Your task to perform on an android device: What's the weather like in London? Image 0: 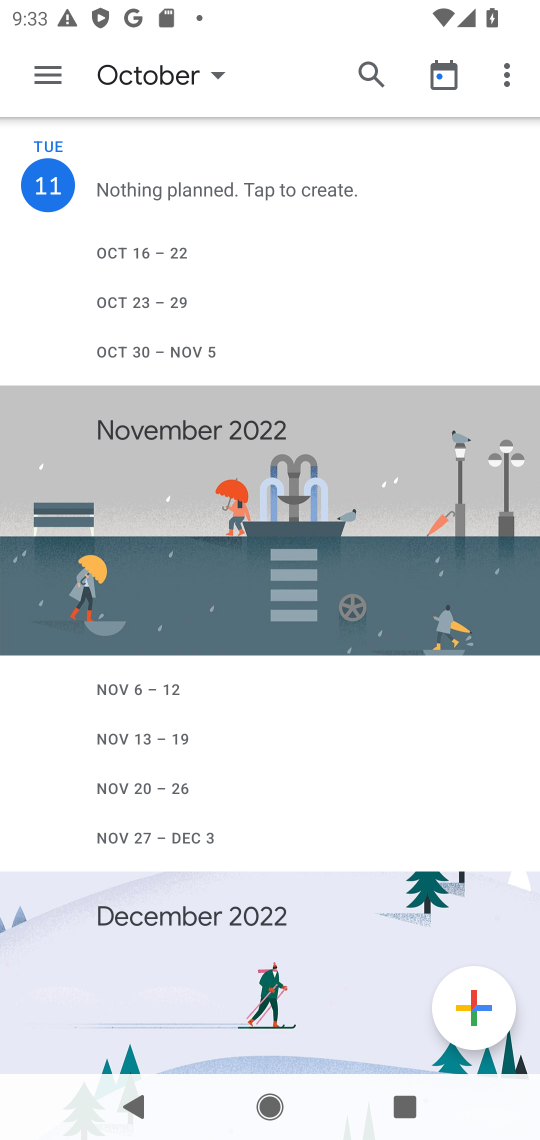
Step 0: press home button
Your task to perform on an android device: What's the weather like in London? Image 1: 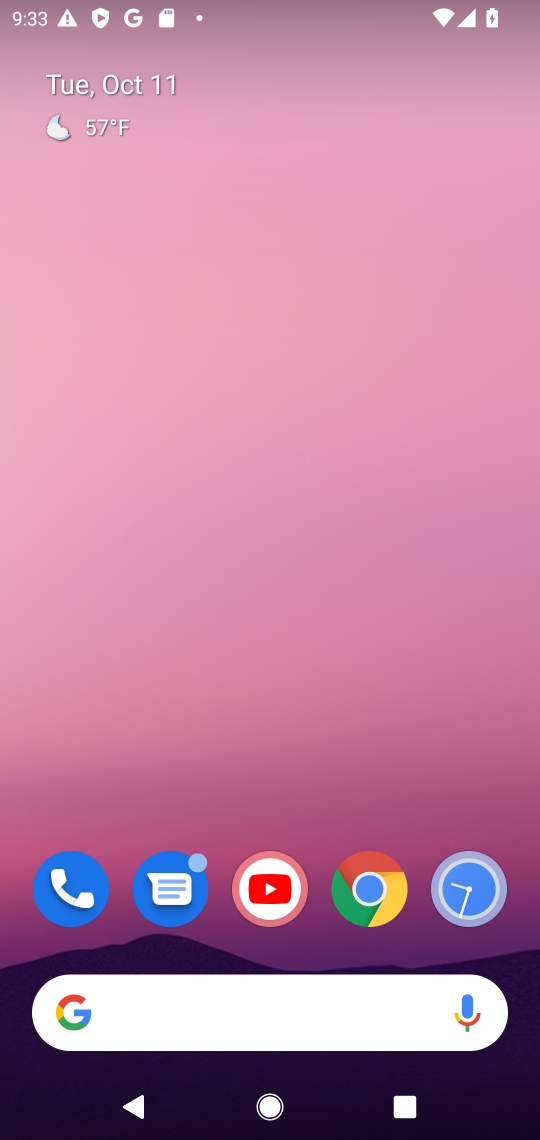
Step 1: click (186, 1015)
Your task to perform on an android device: What's the weather like in London? Image 2: 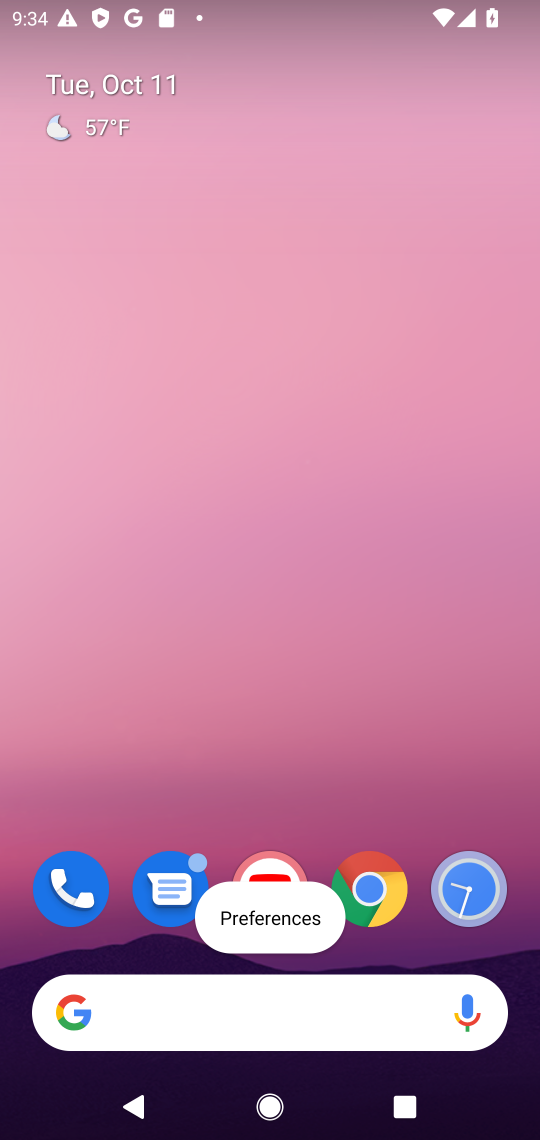
Step 2: click (173, 1033)
Your task to perform on an android device: What's the weather like in London? Image 3: 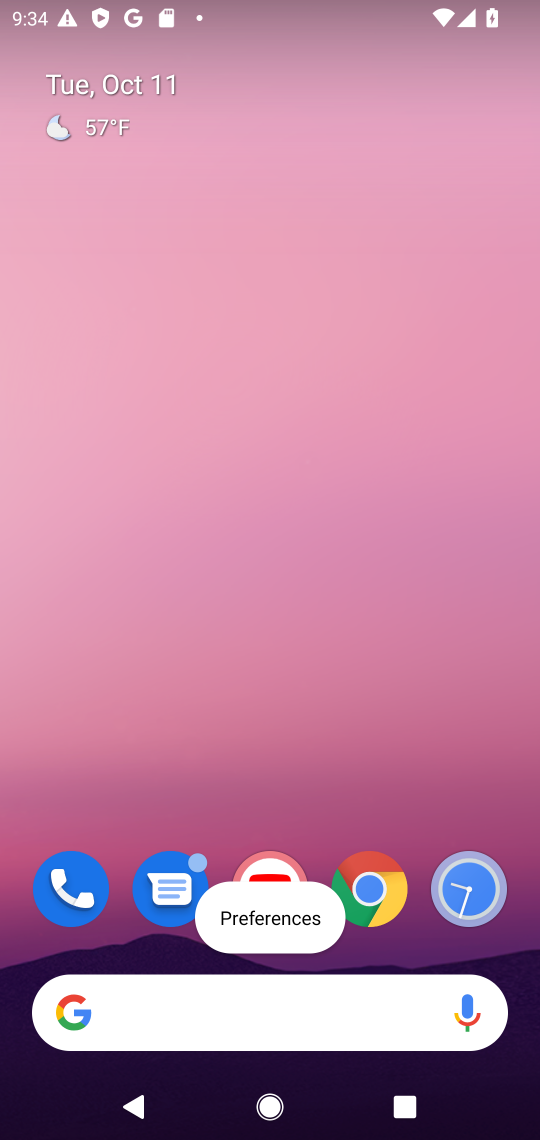
Step 3: click (177, 997)
Your task to perform on an android device: What's the weather like in London? Image 4: 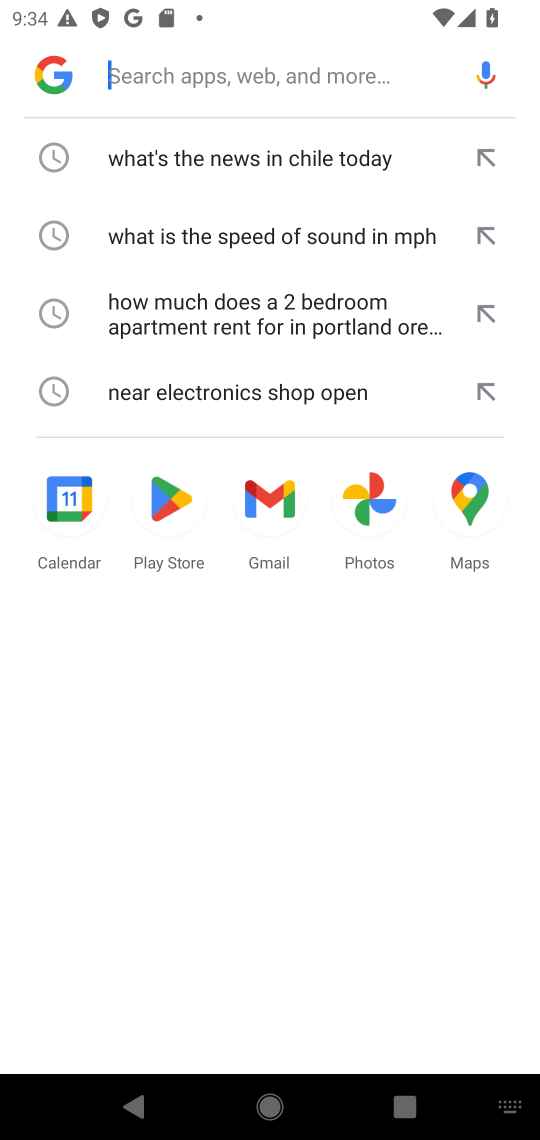
Step 4: click (146, 68)
Your task to perform on an android device: What's the weather like in London? Image 5: 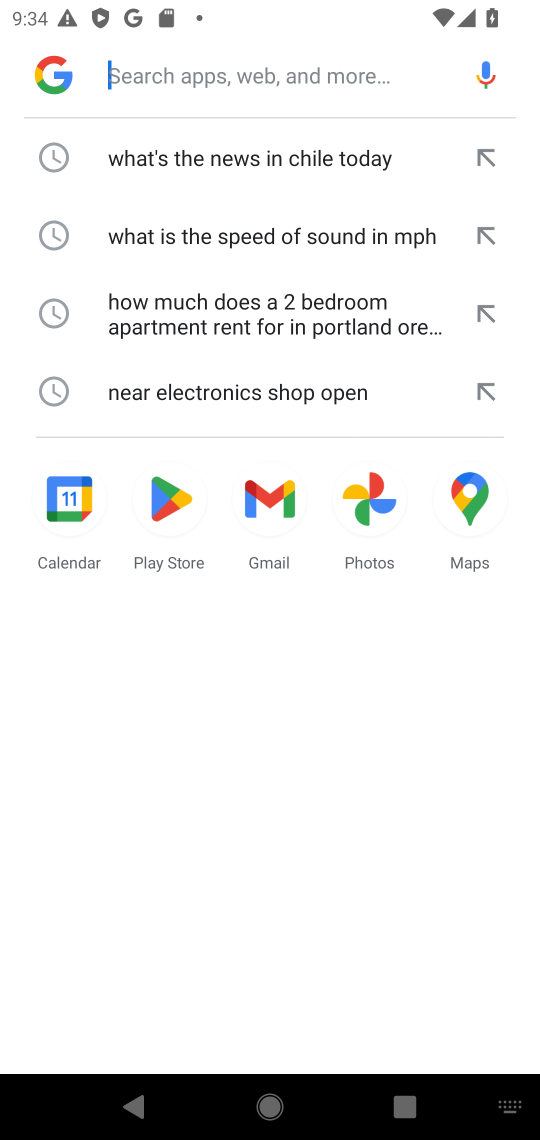
Step 5: type "What's the weather like in London?"
Your task to perform on an android device: What's the weather like in London? Image 6: 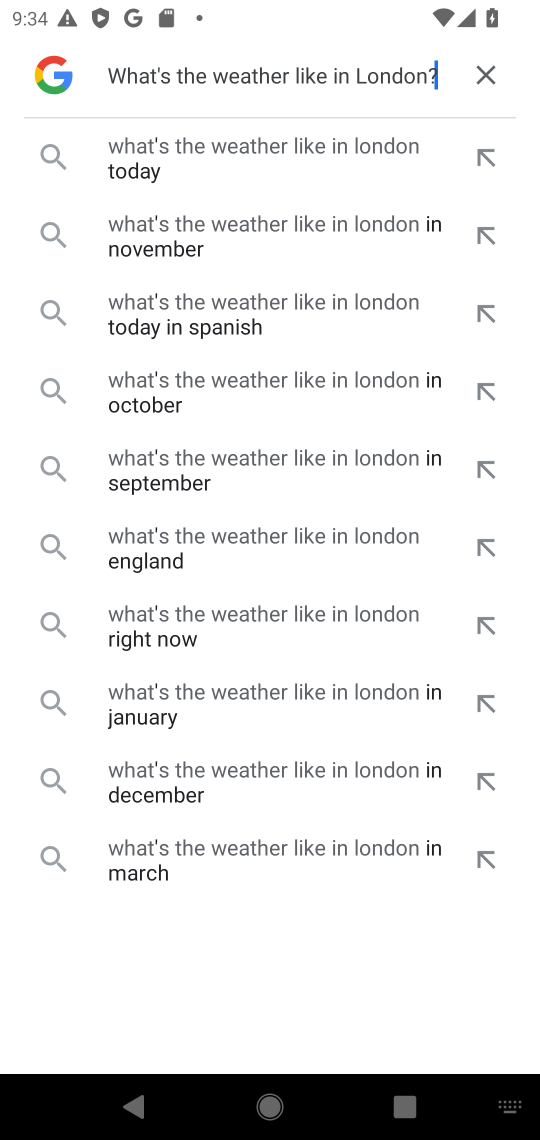
Step 6: click (279, 157)
Your task to perform on an android device: What's the weather like in London? Image 7: 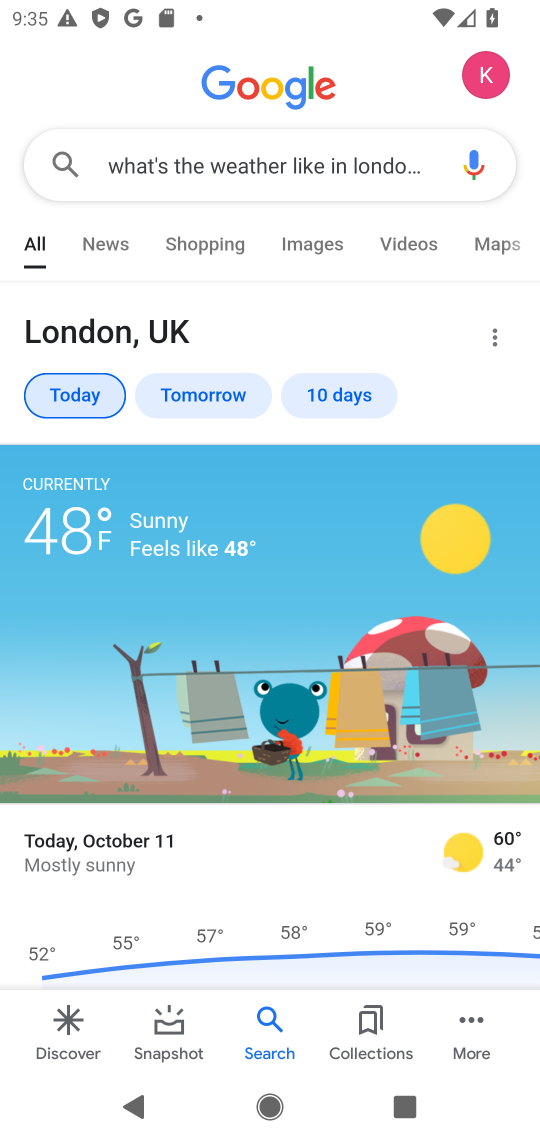
Step 7: task complete